Your task to perform on an android device: turn on improve location accuracy Image 0: 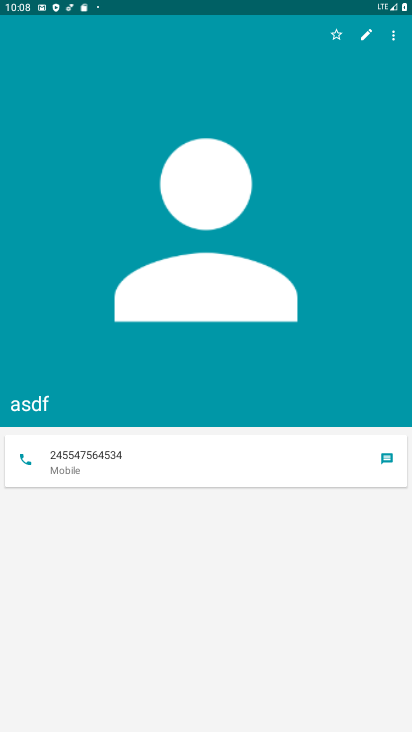
Step 0: task impossible